Your task to perform on an android device: check battery use Image 0: 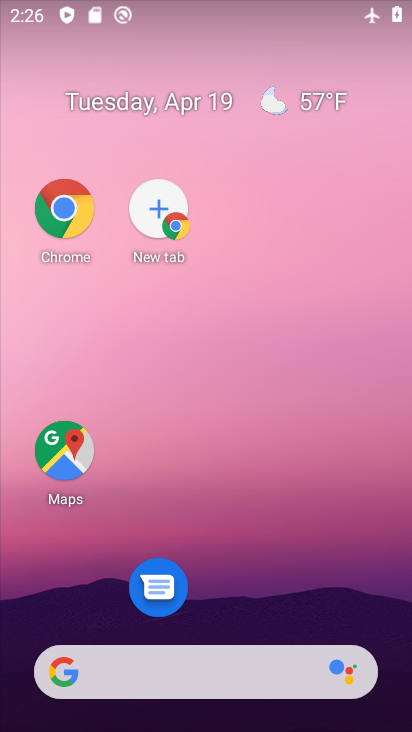
Step 0: drag from (310, 691) to (137, 299)
Your task to perform on an android device: check battery use Image 1: 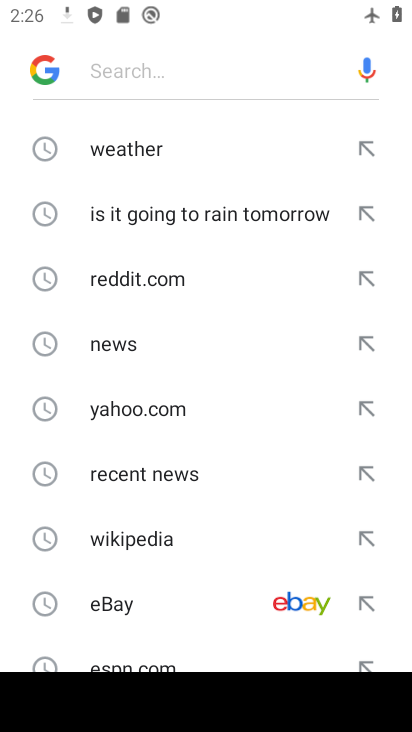
Step 1: press home button
Your task to perform on an android device: check battery use Image 2: 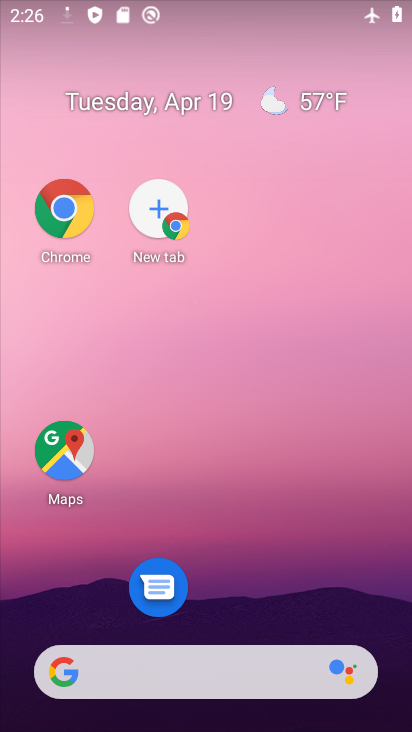
Step 2: drag from (215, 505) to (112, 104)
Your task to perform on an android device: check battery use Image 3: 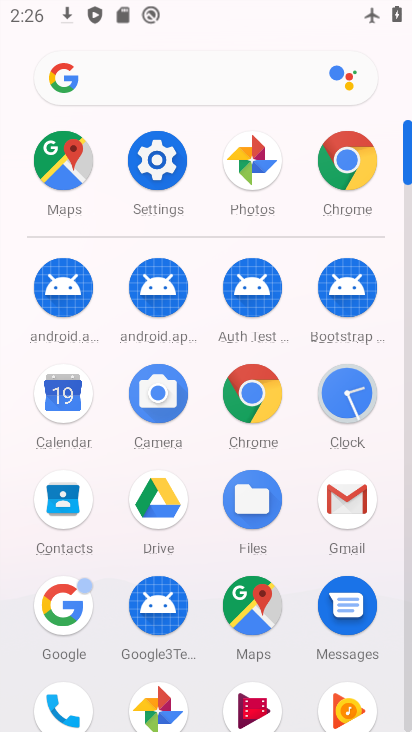
Step 3: click (162, 151)
Your task to perform on an android device: check battery use Image 4: 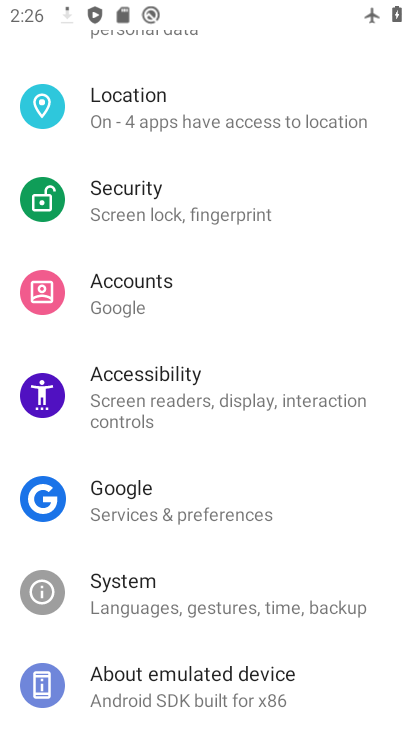
Step 4: click (160, 156)
Your task to perform on an android device: check battery use Image 5: 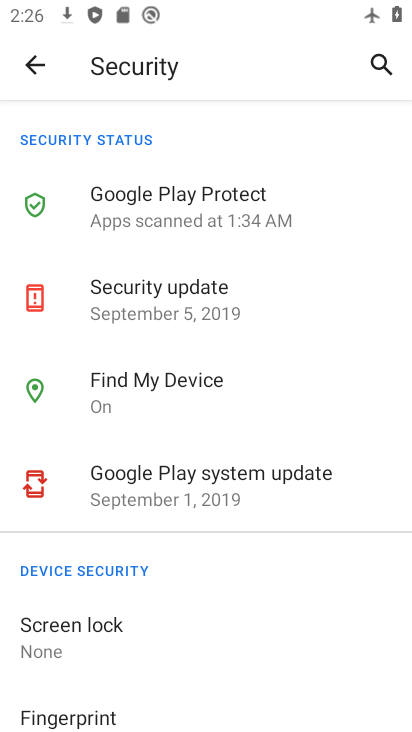
Step 5: click (28, 67)
Your task to perform on an android device: check battery use Image 6: 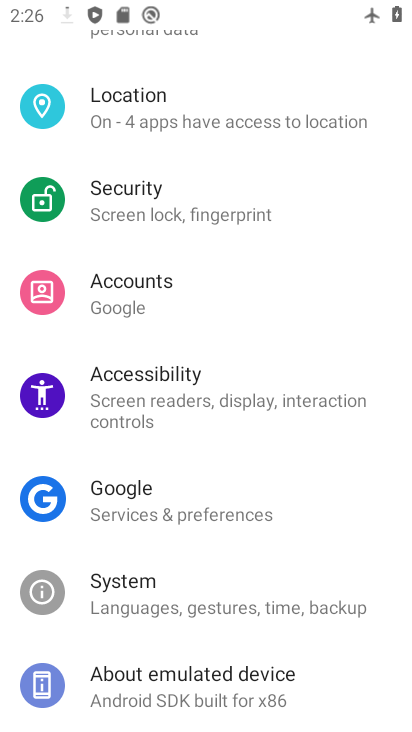
Step 6: drag from (230, 217) to (261, 516)
Your task to perform on an android device: check battery use Image 7: 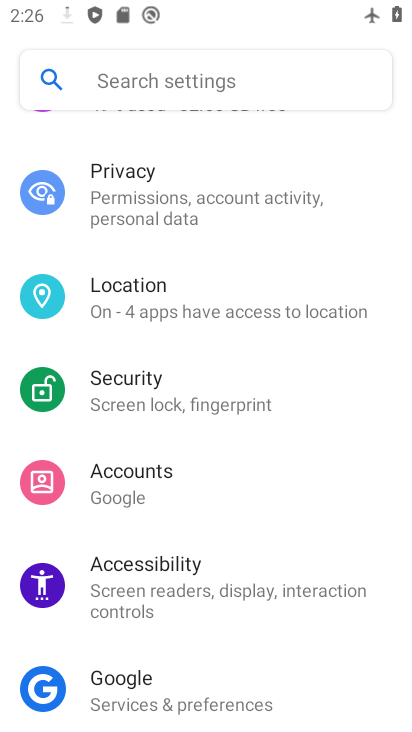
Step 7: drag from (125, 270) to (229, 546)
Your task to perform on an android device: check battery use Image 8: 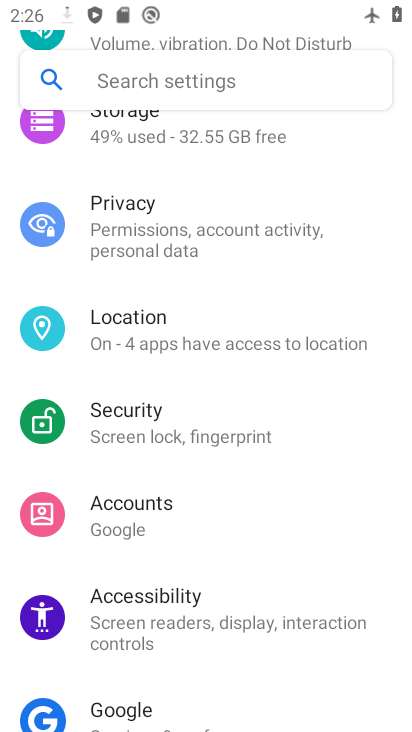
Step 8: drag from (237, 593) to (111, 605)
Your task to perform on an android device: check battery use Image 9: 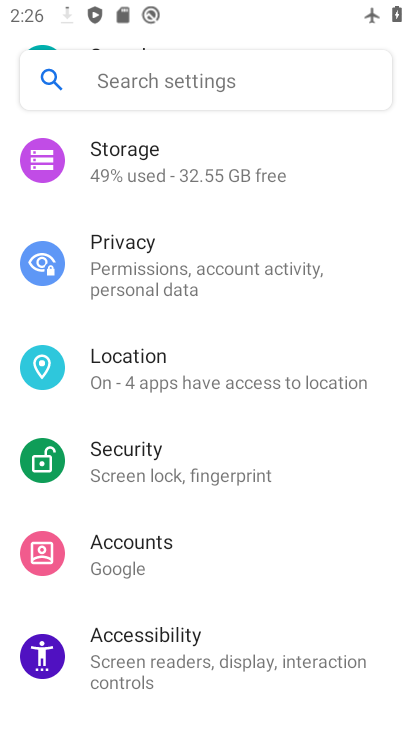
Step 9: drag from (213, 515) to (252, 648)
Your task to perform on an android device: check battery use Image 10: 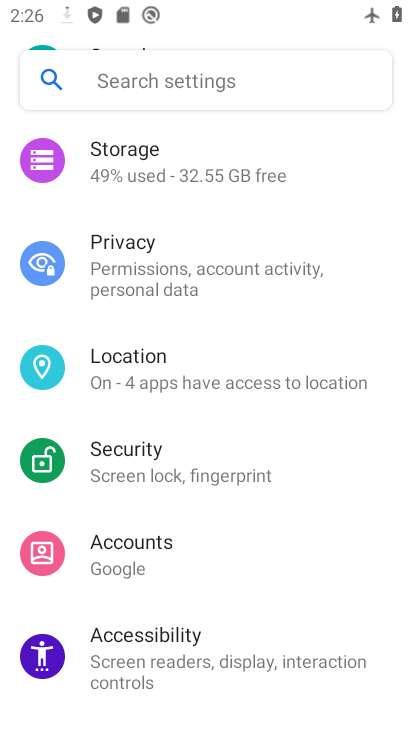
Step 10: click (103, 158)
Your task to perform on an android device: check battery use Image 11: 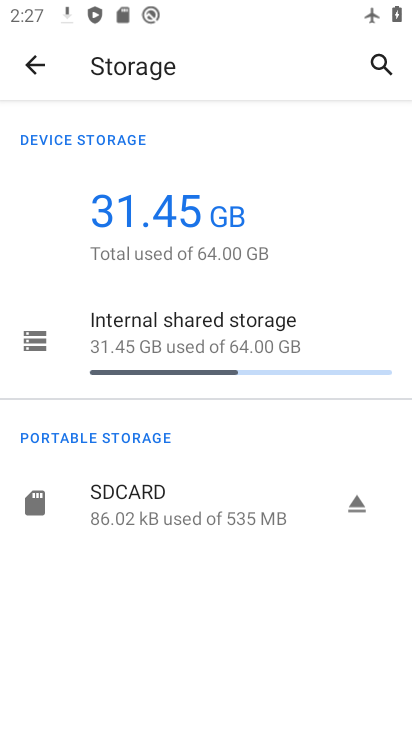
Step 11: click (33, 57)
Your task to perform on an android device: check battery use Image 12: 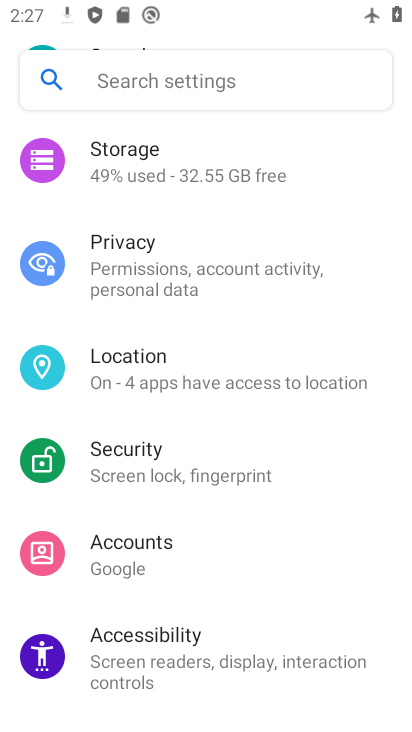
Step 12: drag from (162, 171) to (196, 397)
Your task to perform on an android device: check battery use Image 13: 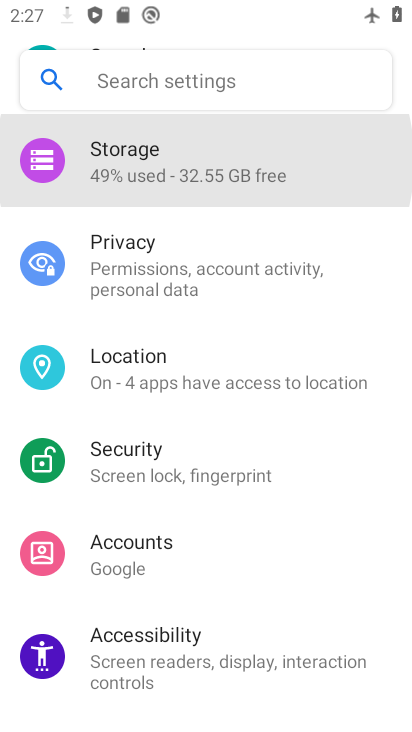
Step 13: click (221, 691)
Your task to perform on an android device: check battery use Image 14: 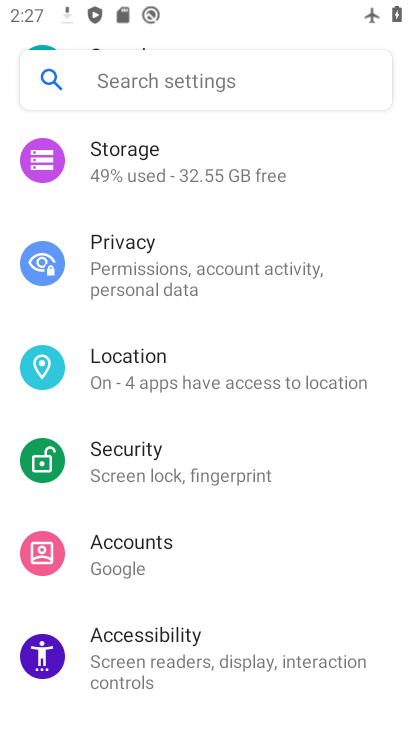
Step 14: click (152, 314)
Your task to perform on an android device: check battery use Image 15: 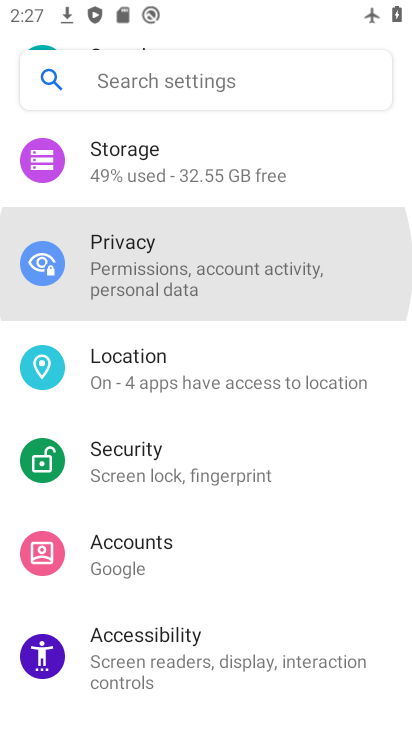
Step 15: drag from (120, 244) to (119, 372)
Your task to perform on an android device: check battery use Image 16: 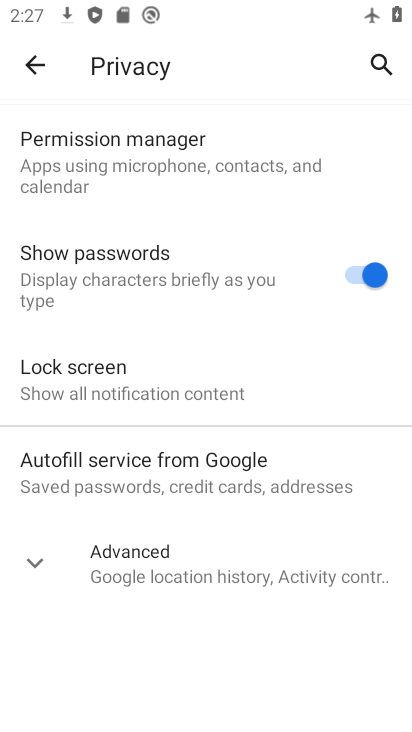
Step 16: click (34, 70)
Your task to perform on an android device: check battery use Image 17: 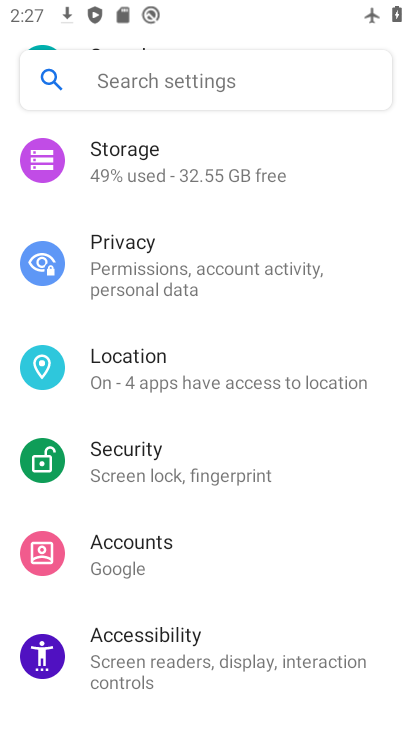
Step 17: drag from (211, 250) to (211, 419)
Your task to perform on an android device: check battery use Image 18: 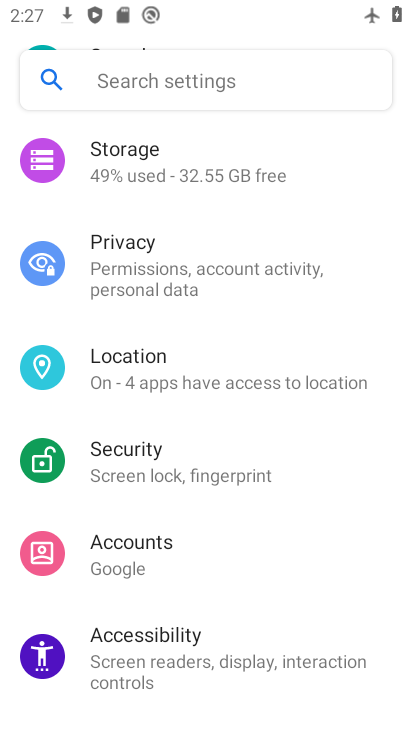
Step 18: drag from (158, 213) to (158, 538)
Your task to perform on an android device: check battery use Image 19: 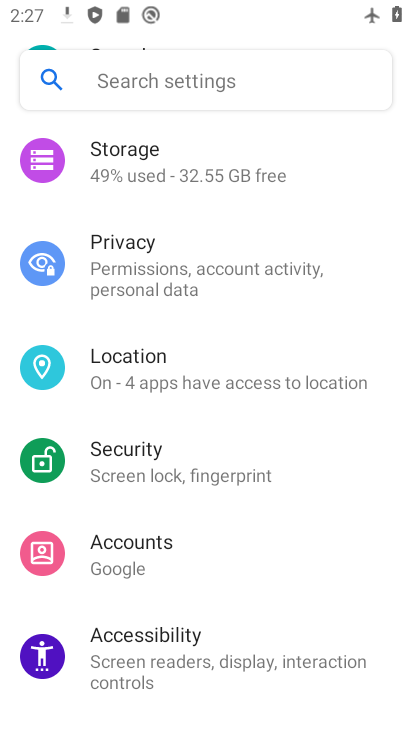
Step 19: click (191, 640)
Your task to perform on an android device: check battery use Image 20: 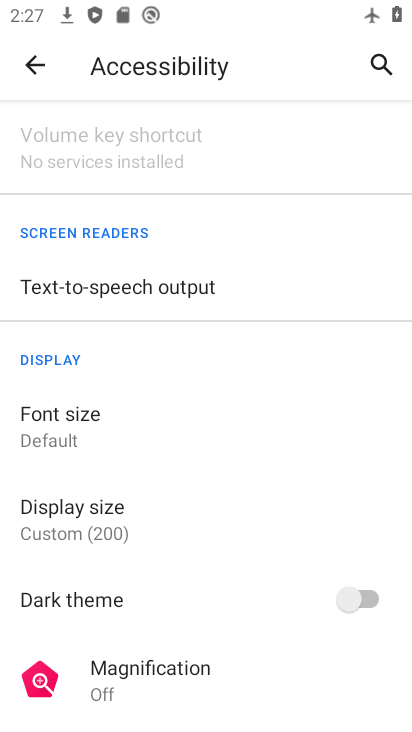
Step 20: click (30, 60)
Your task to perform on an android device: check battery use Image 21: 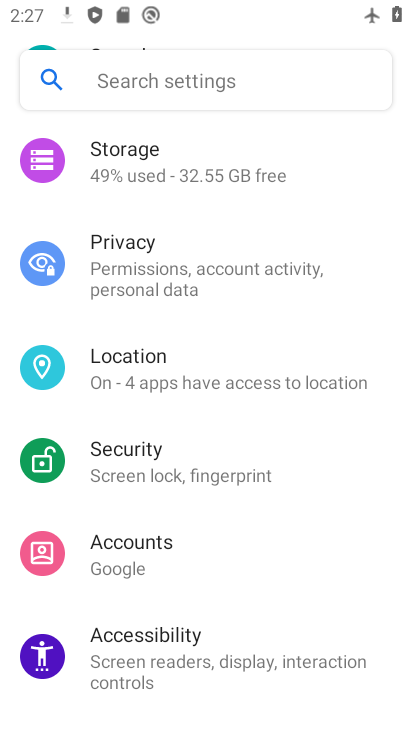
Step 21: drag from (128, 248) to (207, 555)
Your task to perform on an android device: check battery use Image 22: 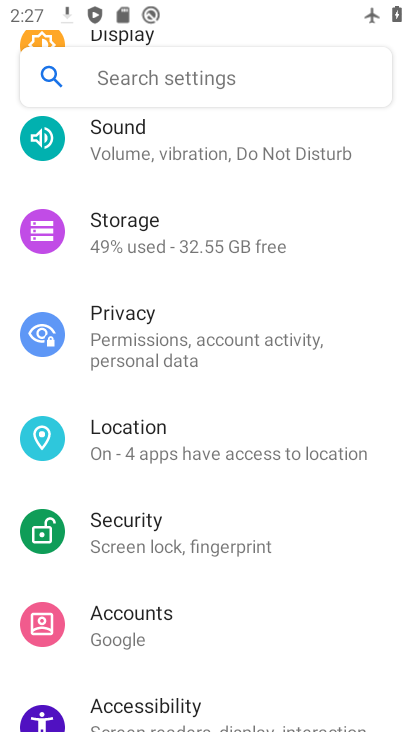
Step 22: click (197, 547)
Your task to perform on an android device: check battery use Image 23: 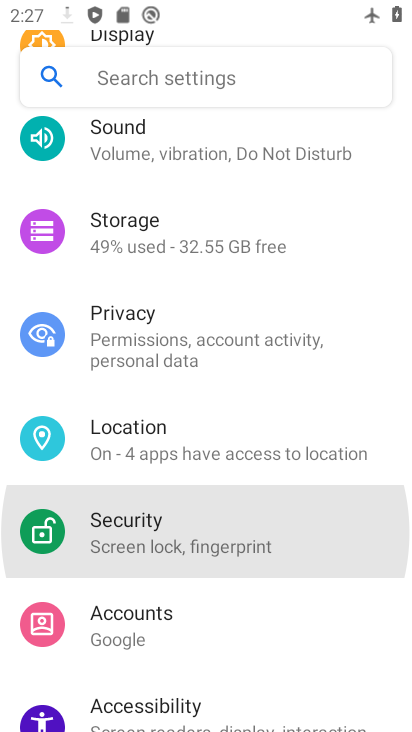
Step 23: click (183, 664)
Your task to perform on an android device: check battery use Image 24: 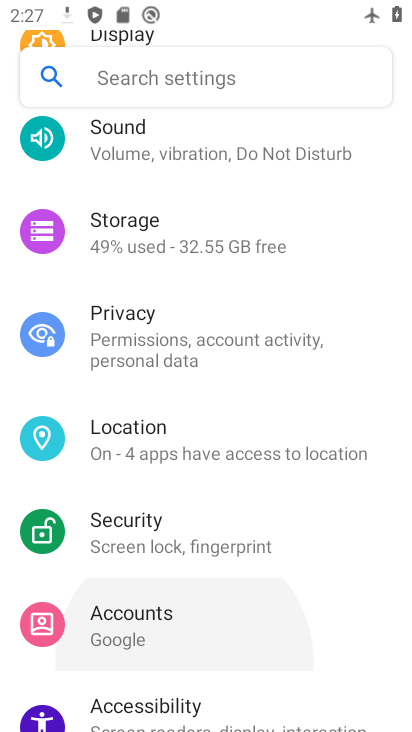
Step 24: drag from (113, 226) to (140, 433)
Your task to perform on an android device: check battery use Image 25: 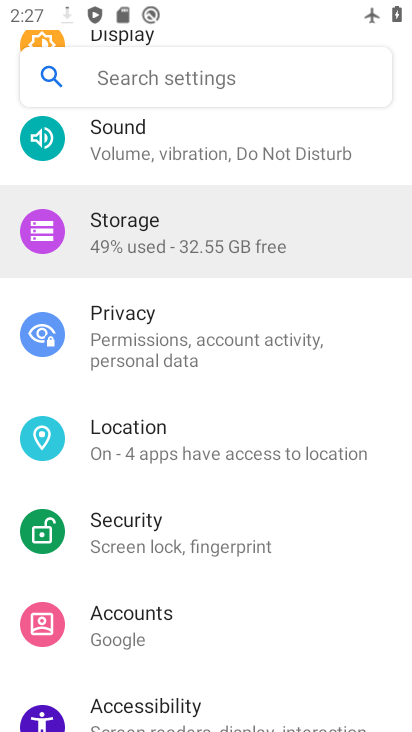
Step 25: drag from (146, 264) to (194, 500)
Your task to perform on an android device: check battery use Image 26: 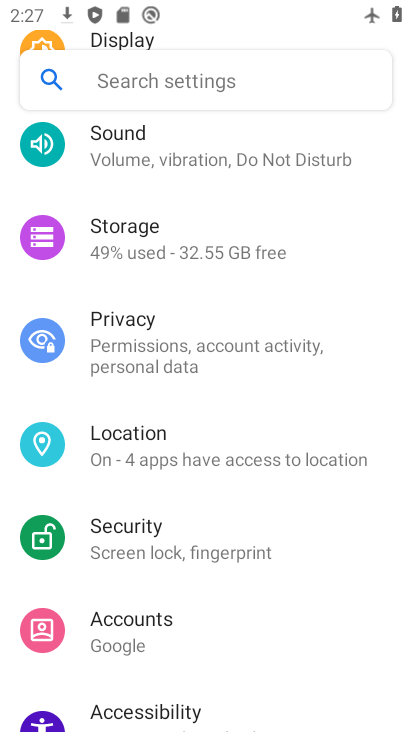
Step 26: drag from (296, 280) to (326, 464)
Your task to perform on an android device: check battery use Image 27: 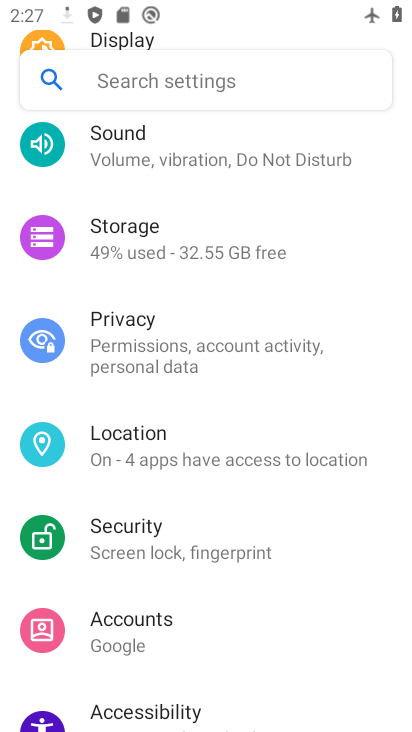
Step 27: drag from (214, 163) to (280, 524)
Your task to perform on an android device: check battery use Image 28: 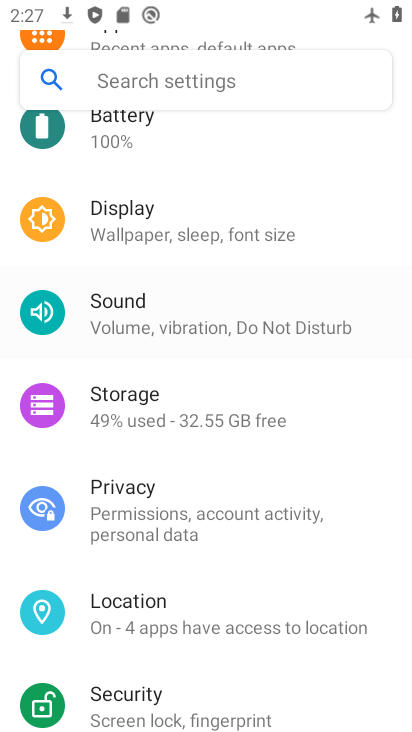
Step 28: drag from (244, 211) to (299, 486)
Your task to perform on an android device: check battery use Image 29: 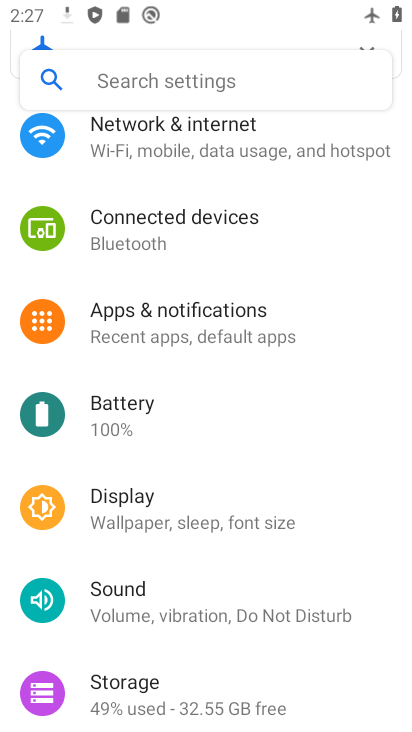
Step 29: click (293, 625)
Your task to perform on an android device: check battery use Image 30: 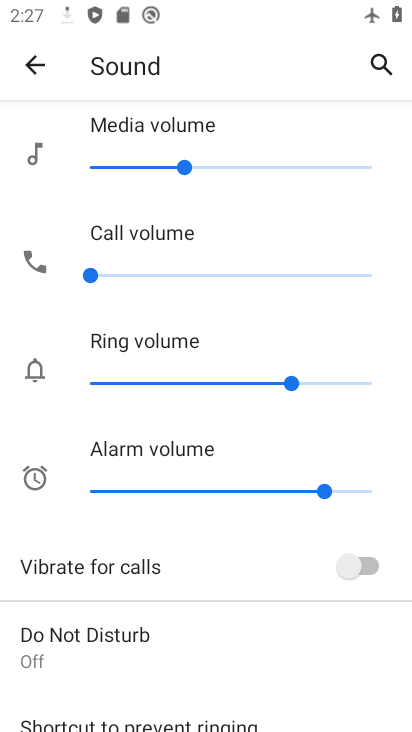
Step 30: click (26, 67)
Your task to perform on an android device: check battery use Image 31: 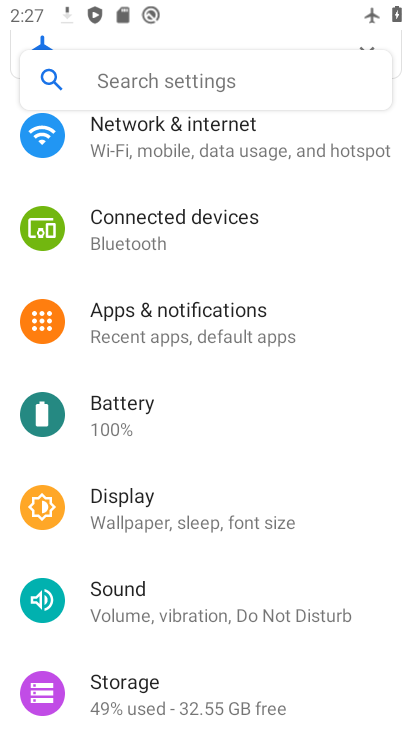
Step 31: click (119, 432)
Your task to perform on an android device: check battery use Image 32: 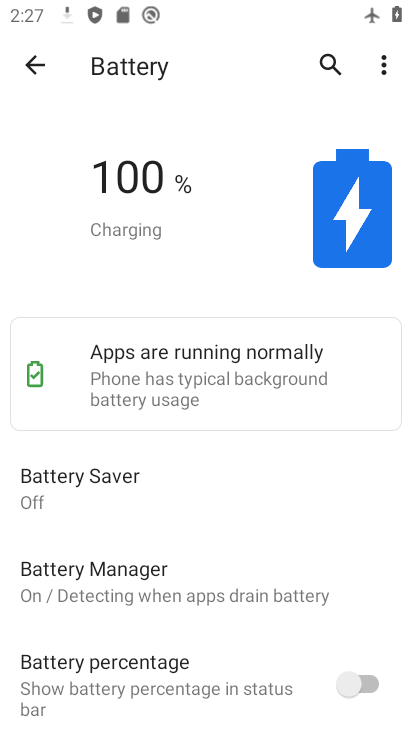
Step 32: task complete